Your task to perform on an android device: open wifi settings Image 0: 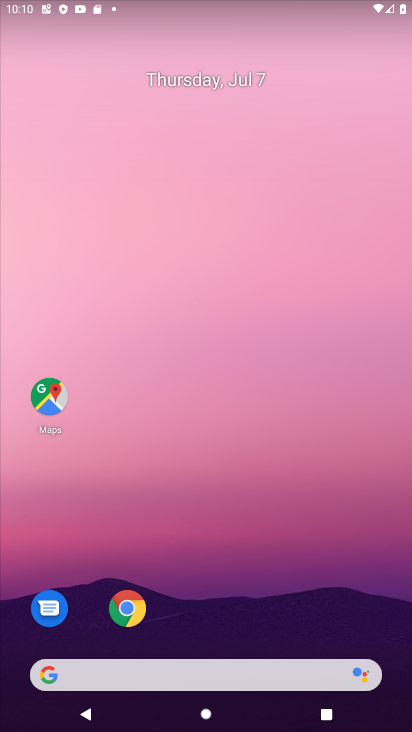
Step 0: drag from (225, 605) to (270, 71)
Your task to perform on an android device: open wifi settings Image 1: 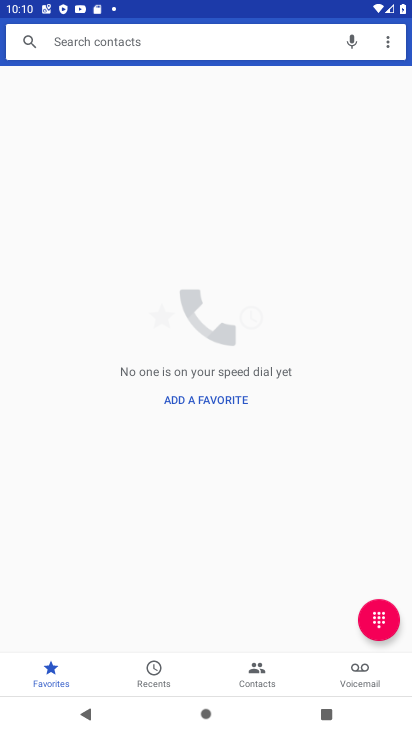
Step 1: press home button
Your task to perform on an android device: open wifi settings Image 2: 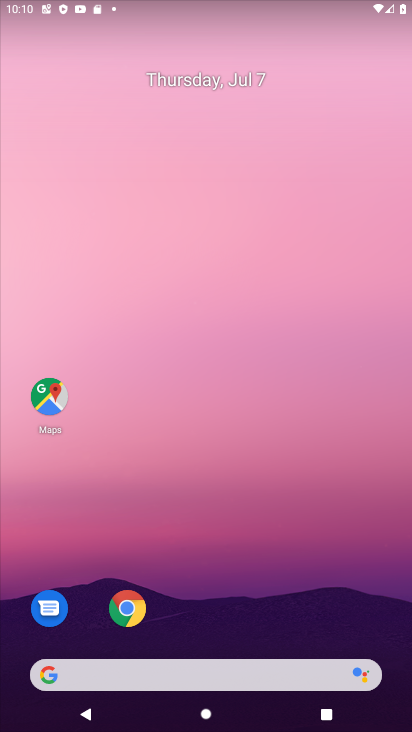
Step 2: drag from (248, 633) to (295, 212)
Your task to perform on an android device: open wifi settings Image 3: 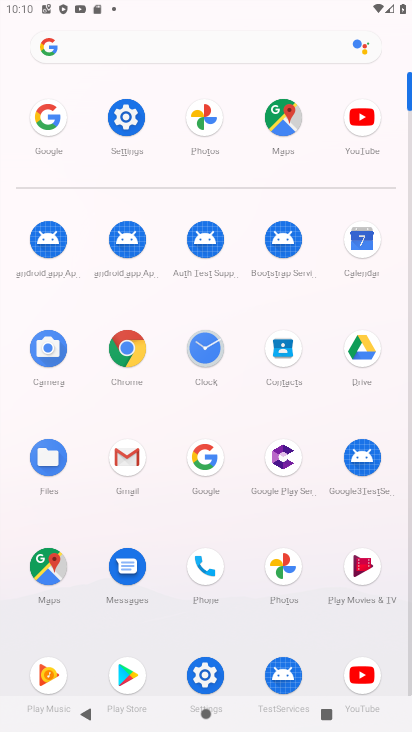
Step 3: click (123, 115)
Your task to perform on an android device: open wifi settings Image 4: 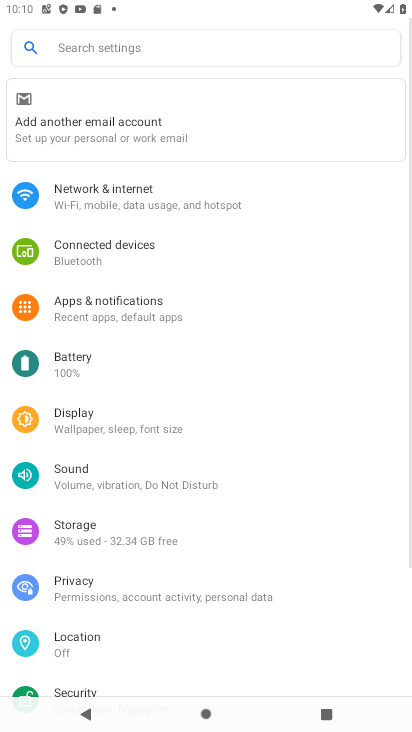
Step 4: click (119, 193)
Your task to perform on an android device: open wifi settings Image 5: 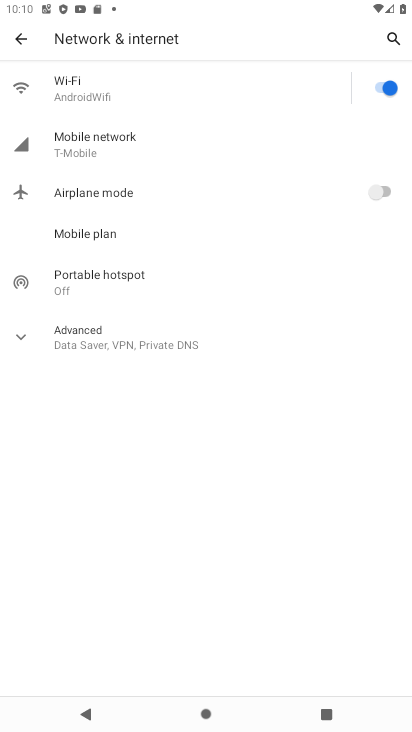
Step 5: click (127, 91)
Your task to perform on an android device: open wifi settings Image 6: 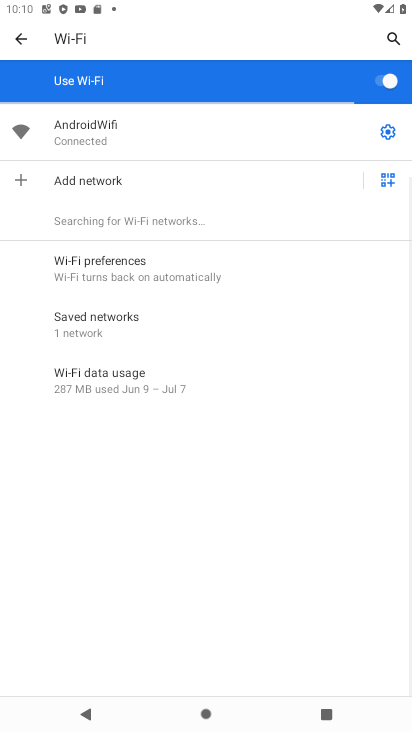
Step 6: click (379, 127)
Your task to perform on an android device: open wifi settings Image 7: 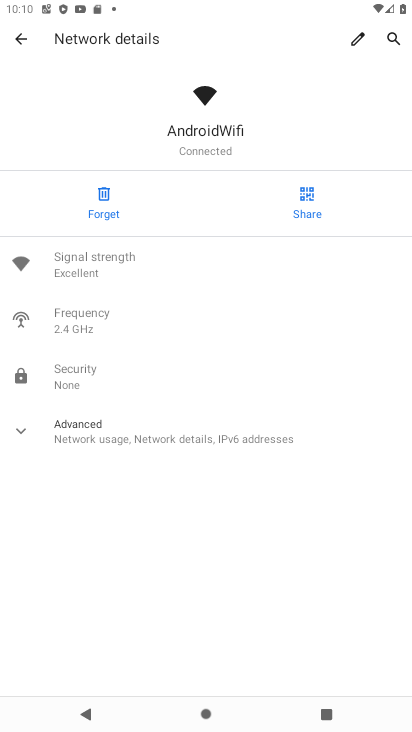
Step 7: task complete